Your task to perform on an android device: turn on priority inbox in the gmail app Image 0: 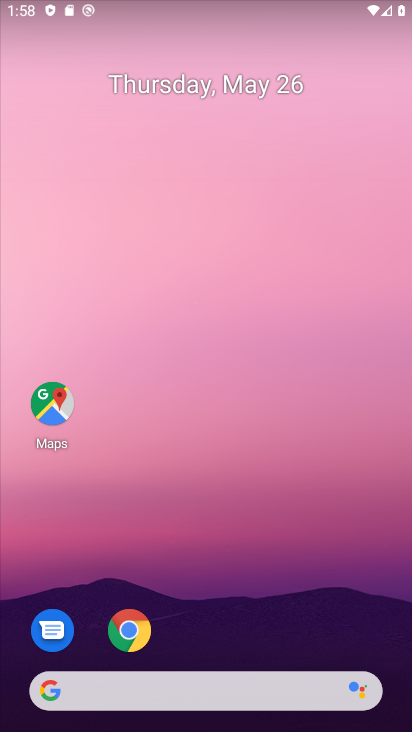
Step 0: drag from (287, 610) to (228, 185)
Your task to perform on an android device: turn on priority inbox in the gmail app Image 1: 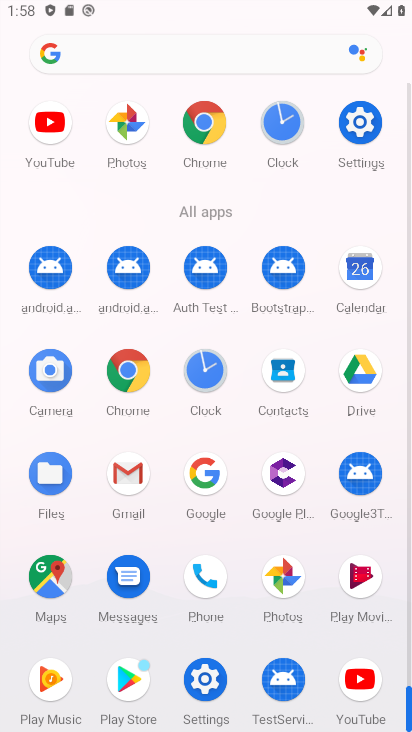
Step 1: click (138, 485)
Your task to perform on an android device: turn on priority inbox in the gmail app Image 2: 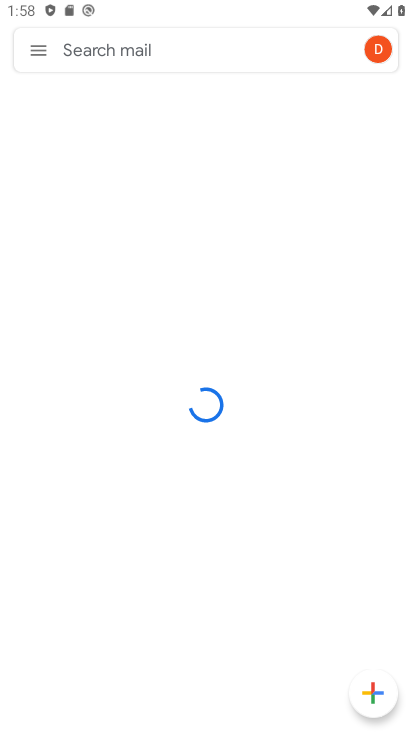
Step 2: click (47, 55)
Your task to perform on an android device: turn on priority inbox in the gmail app Image 3: 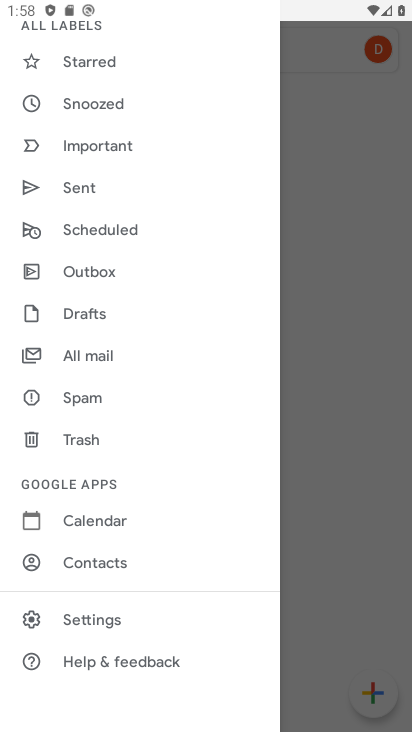
Step 3: click (111, 617)
Your task to perform on an android device: turn on priority inbox in the gmail app Image 4: 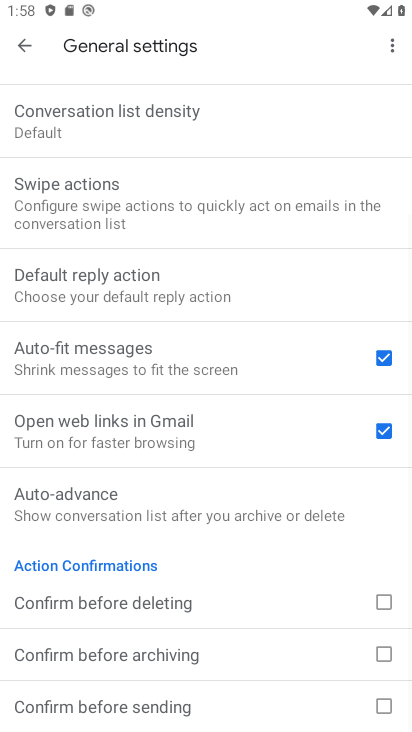
Step 4: task complete